Your task to perform on an android device: create a new album in the google photos Image 0: 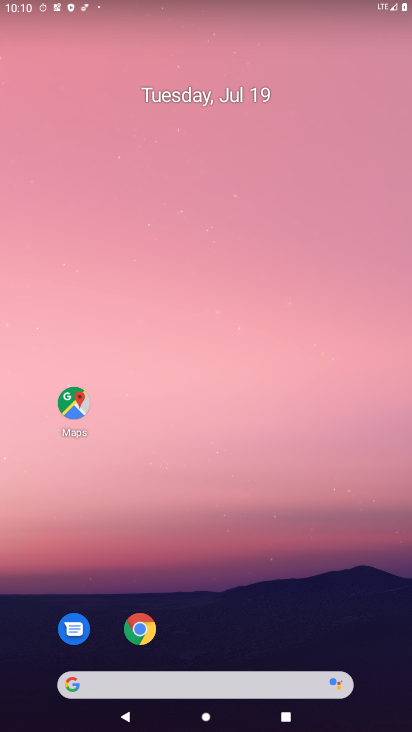
Step 0: drag from (196, 649) to (305, 3)
Your task to perform on an android device: create a new album in the google photos Image 1: 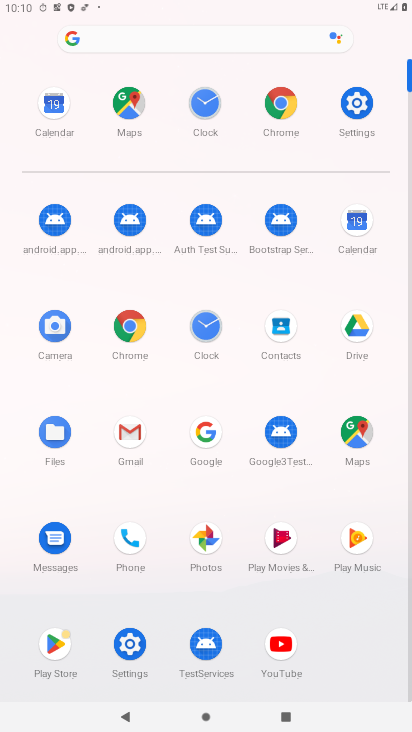
Step 1: click (206, 550)
Your task to perform on an android device: create a new album in the google photos Image 2: 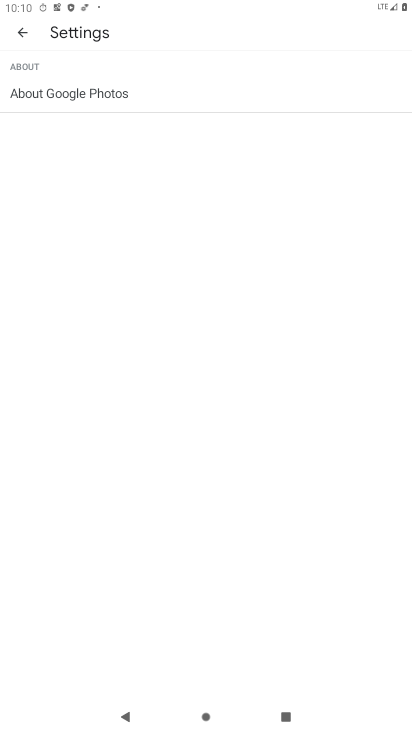
Step 2: click (16, 27)
Your task to perform on an android device: create a new album in the google photos Image 3: 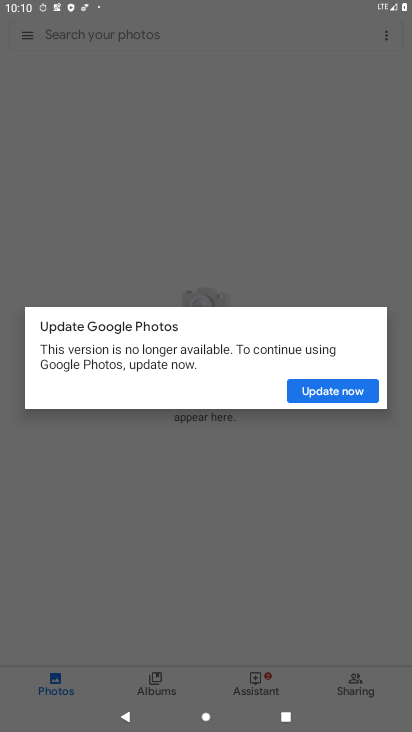
Step 3: click (329, 393)
Your task to perform on an android device: create a new album in the google photos Image 4: 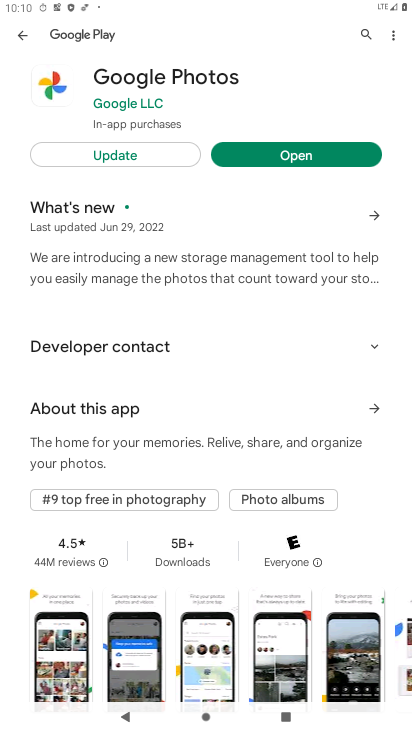
Step 4: click (260, 162)
Your task to perform on an android device: create a new album in the google photos Image 5: 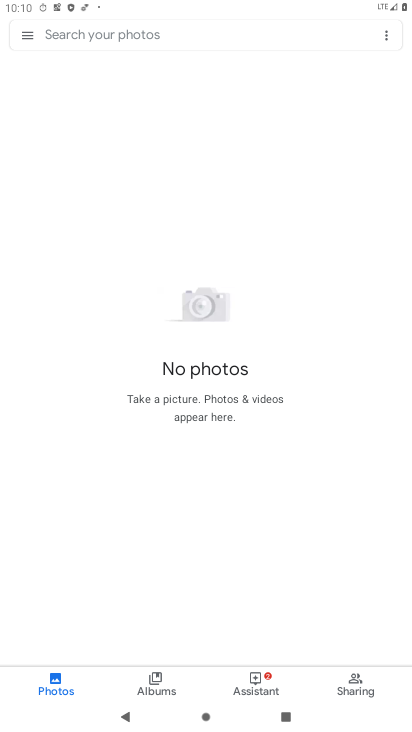
Step 5: click (144, 682)
Your task to perform on an android device: create a new album in the google photos Image 6: 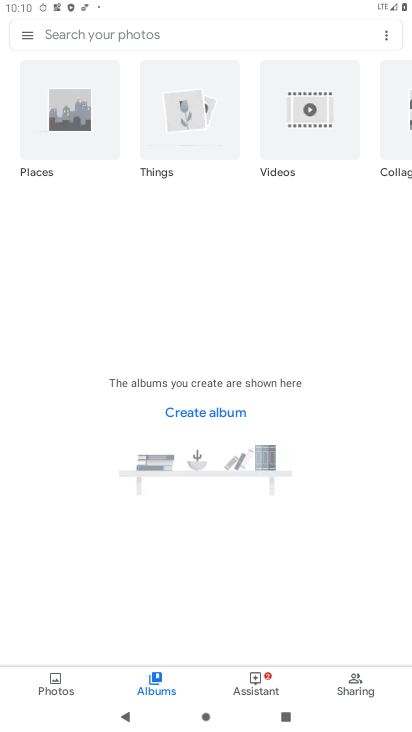
Step 6: click (208, 413)
Your task to perform on an android device: create a new album in the google photos Image 7: 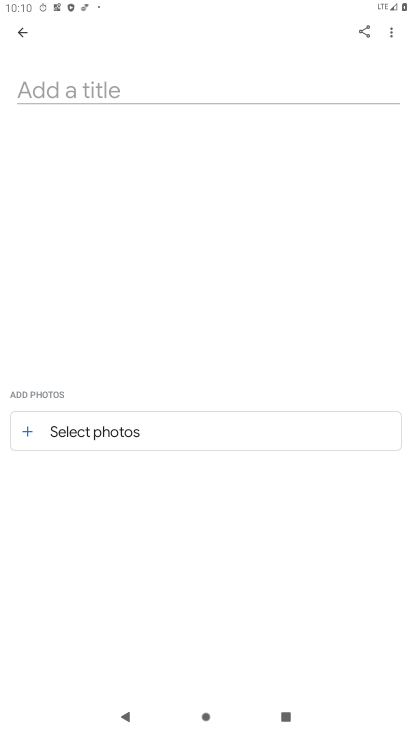
Step 7: click (81, 432)
Your task to perform on an android device: create a new album in the google photos Image 8: 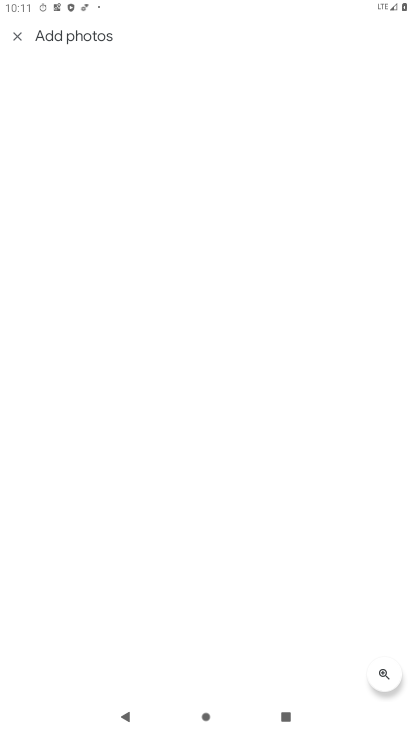
Step 8: task complete